Your task to perform on an android device: Turn on the flashlight Image 0: 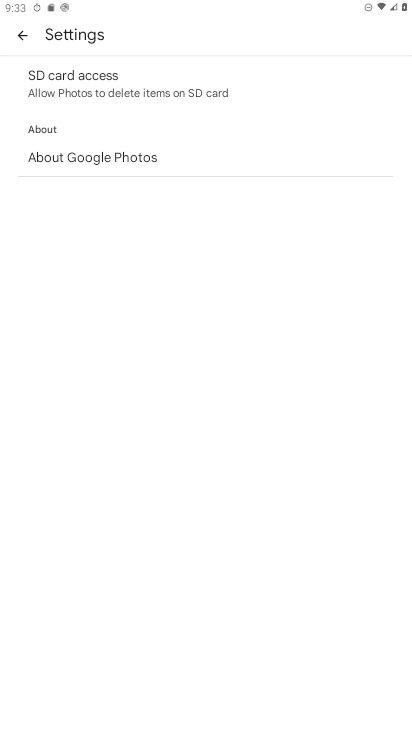
Step 0: press home button
Your task to perform on an android device: Turn on the flashlight Image 1: 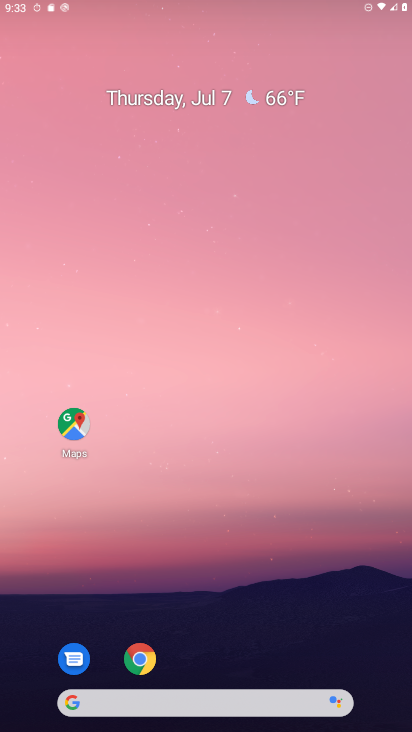
Step 1: drag from (397, 708) to (295, 85)
Your task to perform on an android device: Turn on the flashlight Image 2: 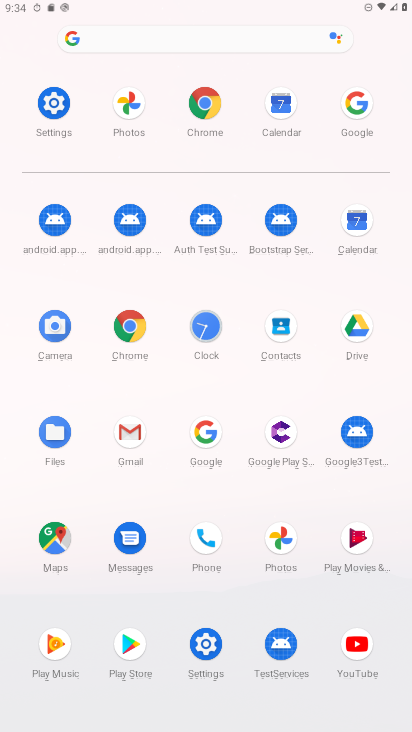
Step 2: click (197, 639)
Your task to perform on an android device: Turn on the flashlight Image 3: 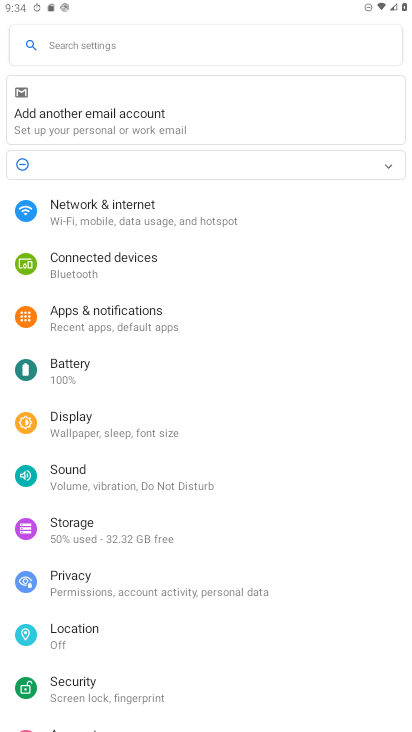
Step 3: task complete